Your task to perform on an android device: turn off data saver in the chrome app Image 0: 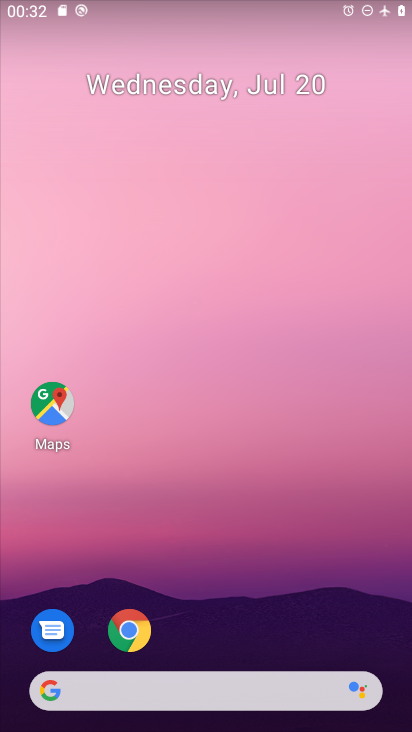
Step 0: click (112, 636)
Your task to perform on an android device: turn off data saver in the chrome app Image 1: 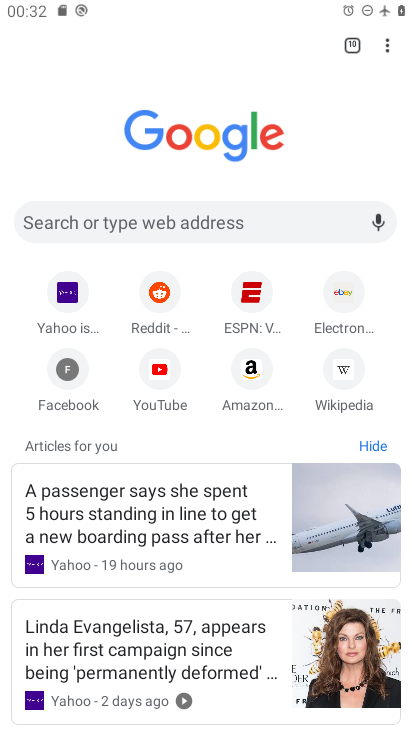
Step 1: click (378, 45)
Your task to perform on an android device: turn off data saver in the chrome app Image 2: 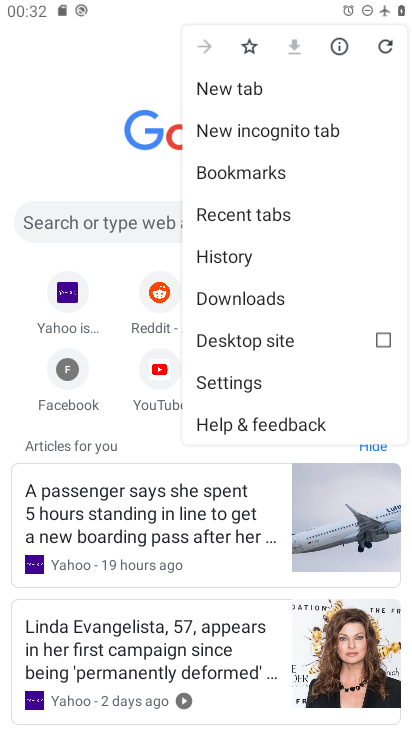
Step 2: click (248, 375)
Your task to perform on an android device: turn off data saver in the chrome app Image 3: 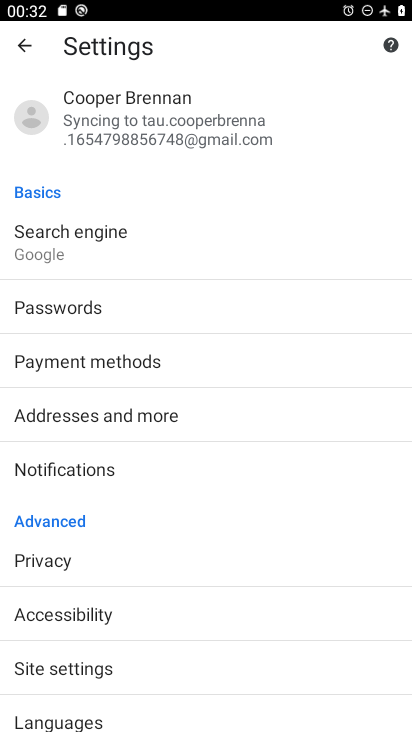
Step 3: drag from (133, 663) to (146, 323)
Your task to perform on an android device: turn off data saver in the chrome app Image 4: 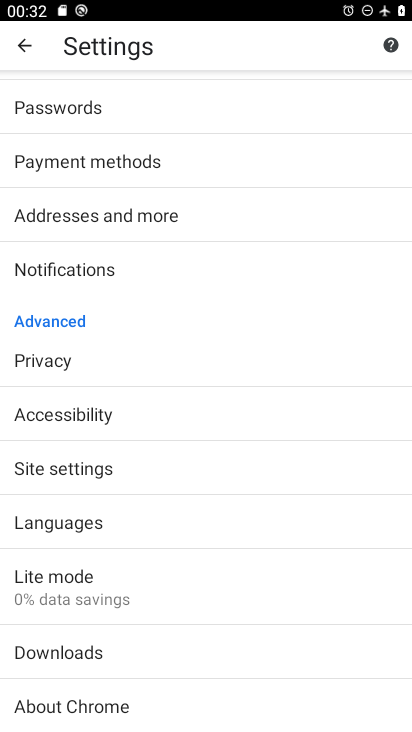
Step 4: click (119, 584)
Your task to perform on an android device: turn off data saver in the chrome app Image 5: 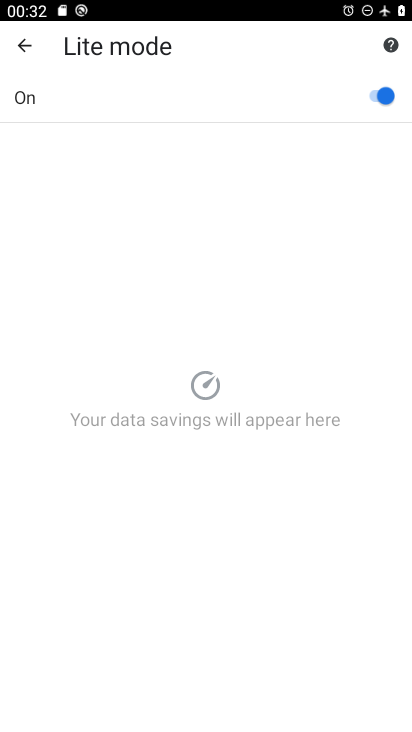
Step 5: click (367, 100)
Your task to perform on an android device: turn off data saver in the chrome app Image 6: 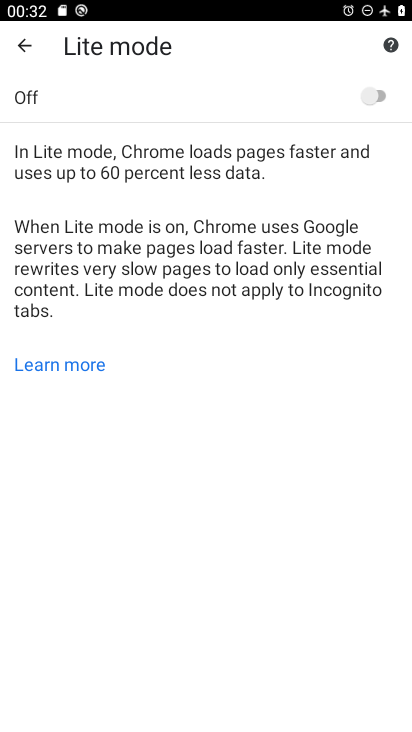
Step 6: task complete